Your task to perform on an android device: turn on notifications settings in the gmail app Image 0: 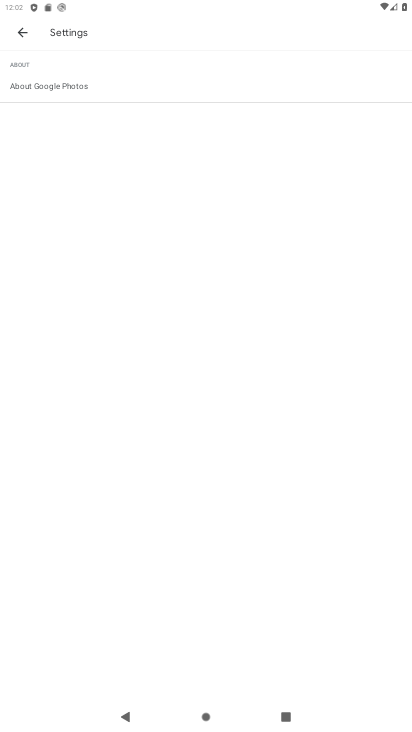
Step 0: press home button
Your task to perform on an android device: turn on notifications settings in the gmail app Image 1: 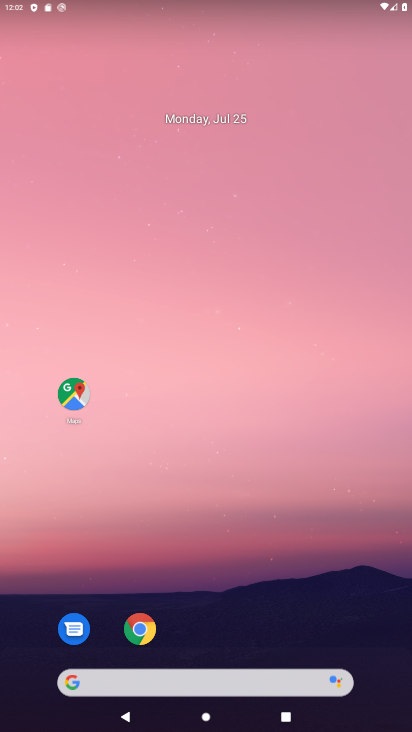
Step 1: drag from (212, 651) to (269, 87)
Your task to perform on an android device: turn on notifications settings in the gmail app Image 2: 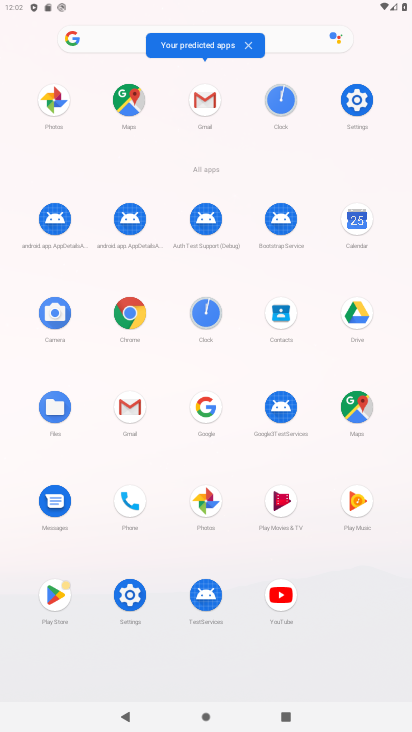
Step 2: click (214, 110)
Your task to perform on an android device: turn on notifications settings in the gmail app Image 3: 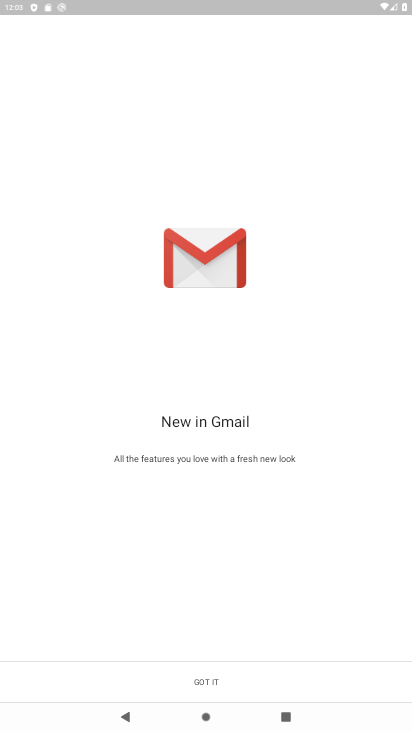
Step 3: click (220, 687)
Your task to perform on an android device: turn on notifications settings in the gmail app Image 4: 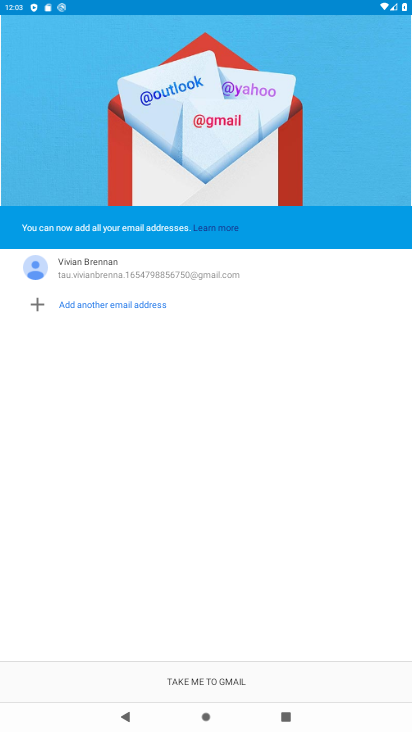
Step 4: click (220, 687)
Your task to perform on an android device: turn on notifications settings in the gmail app Image 5: 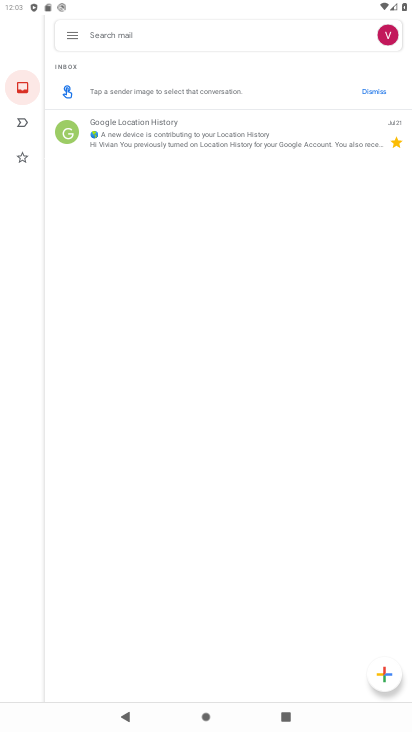
Step 5: click (75, 38)
Your task to perform on an android device: turn on notifications settings in the gmail app Image 6: 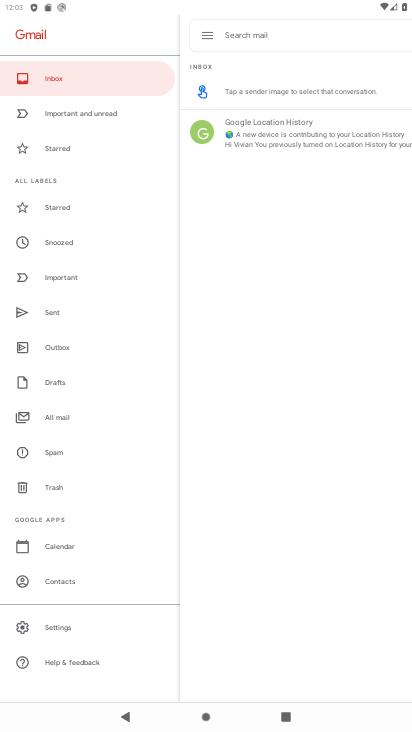
Step 6: click (125, 621)
Your task to perform on an android device: turn on notifications settings in the gmail app Image 7: 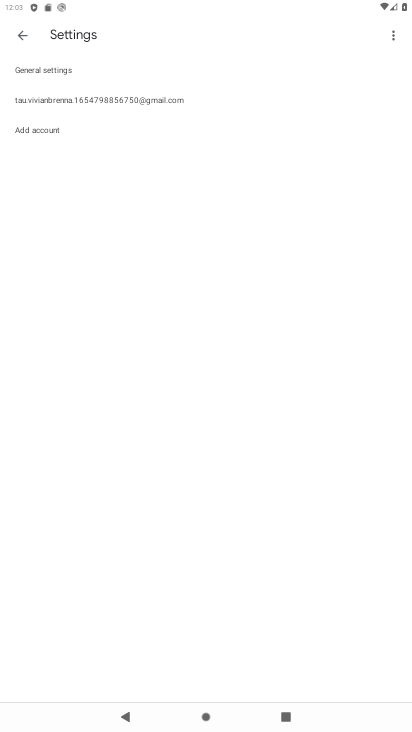
Step 7: click (193, 107)
Your task to perform on an android device: turn on notifications settings in the gmail app Image 8: 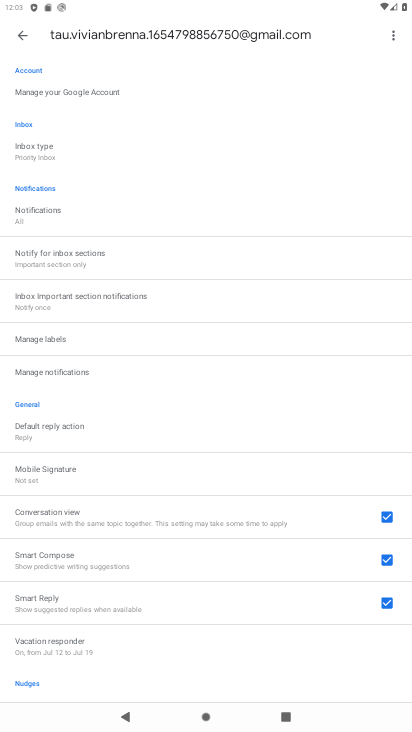
Step 8: click (94, 373)
Your task to perform on an android device: turn on notifications settings in the gmail app Image 9: 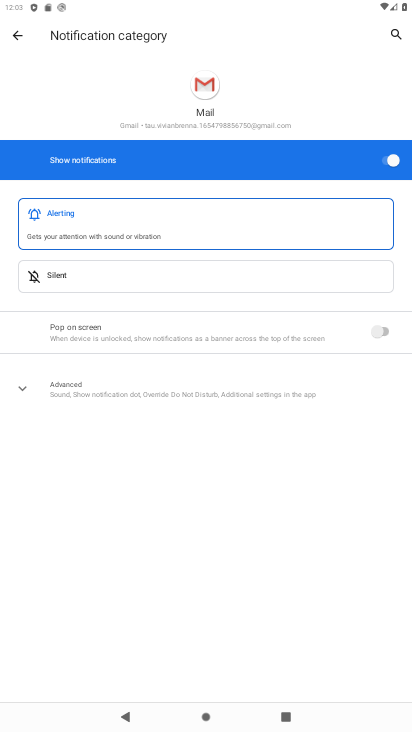
Step 9: click (311, 397)
Your task to perform on an android device: turn on notifications settings in the gmail app Image 10: 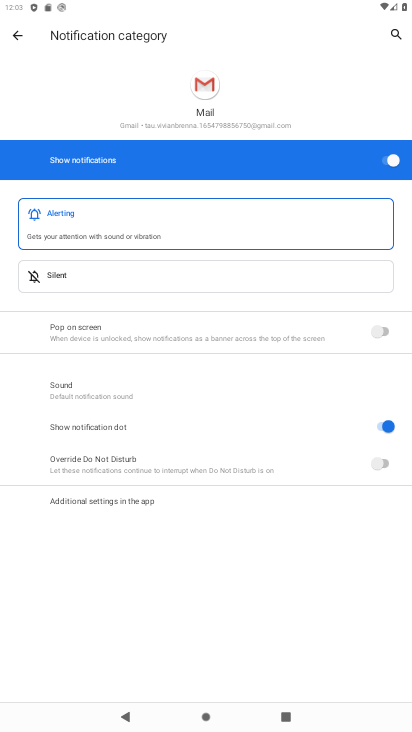
Step 10: task complete